Your task to perform on an android device: Go to location settings Image 0: 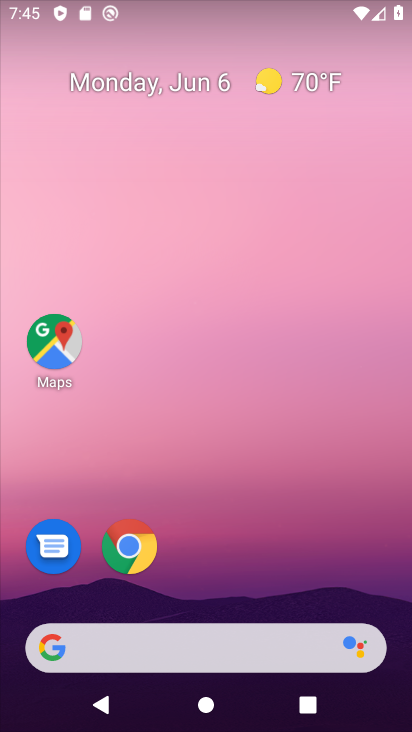
Step 0: drag from (222, 574) to (315, 30)
Your task to perform on an android device: Go to location settings Image 1: 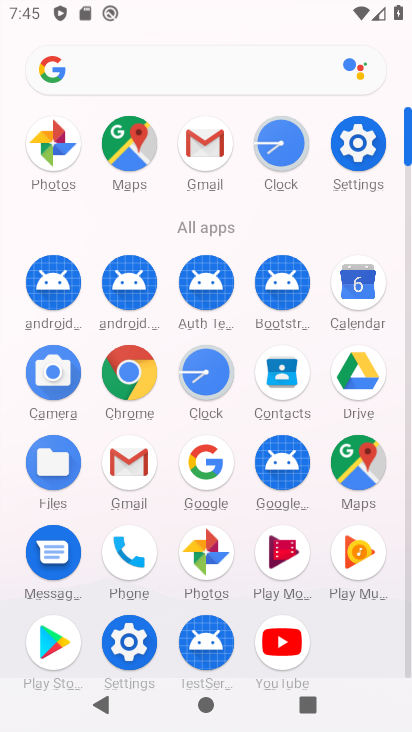
Step 1: click (365, 119)
Your task to perform on an android device: Go to location settings Image 2: 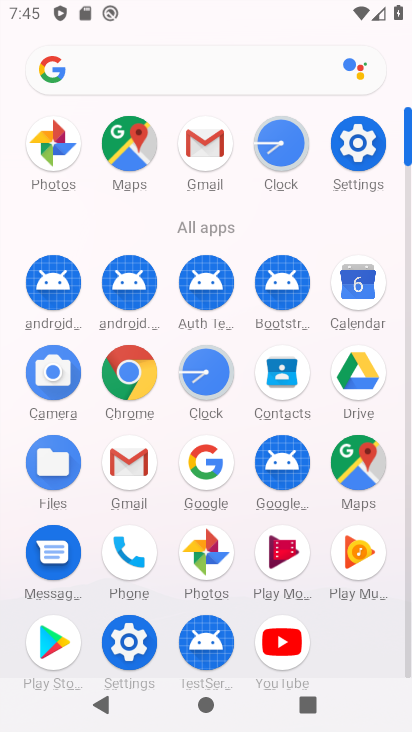
Step 2: click (363, 143)
Your task to perform on an android device: Go to location settings Image 3: 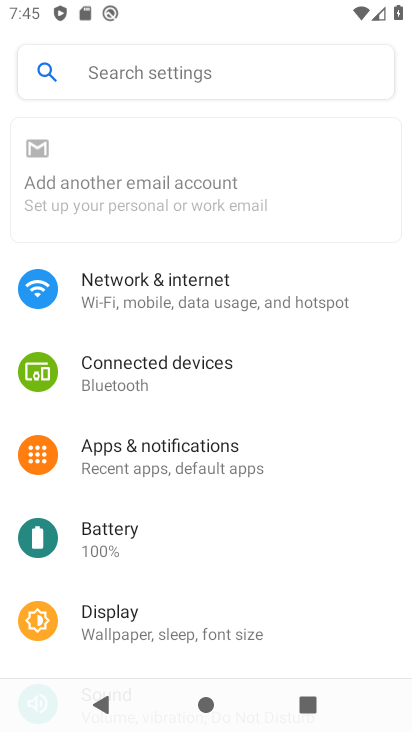
Step 3: drag from (177, 532) to (248, 98)
Your task to perform on an android device: Go to location settings Image 4: 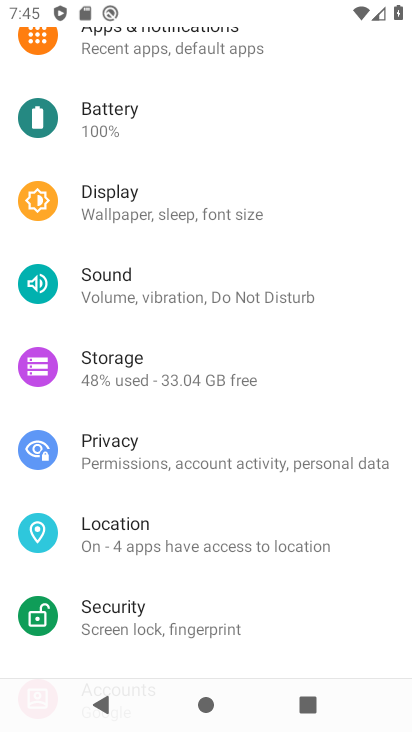
Step 4: drag from (228, 584) to (227, 137)
Your task to perform on an android device: Go to location settings Image 5: 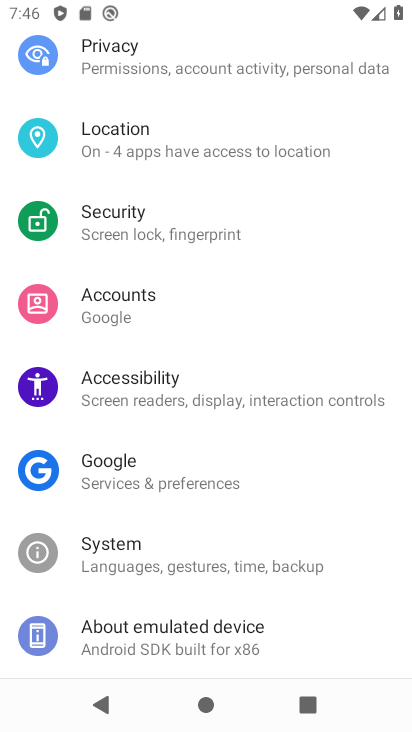
Step 5: click (179, 122)
Your task to perform on an android device: Go to location settings Image 6: 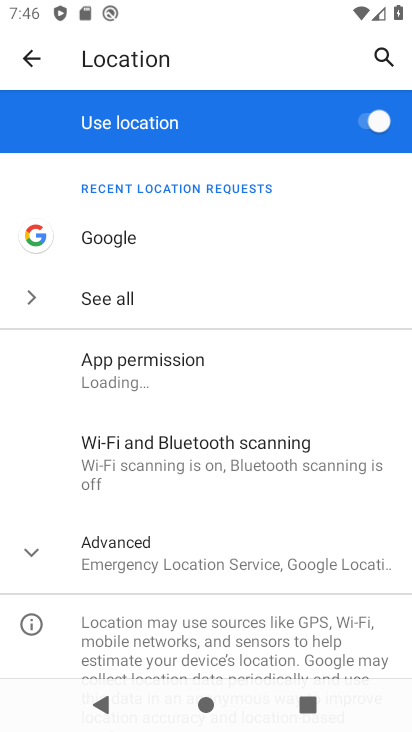
Step 6: task complete